Your task to perform on an android device: Search for vegetarian restaurants on Maps Image 0: 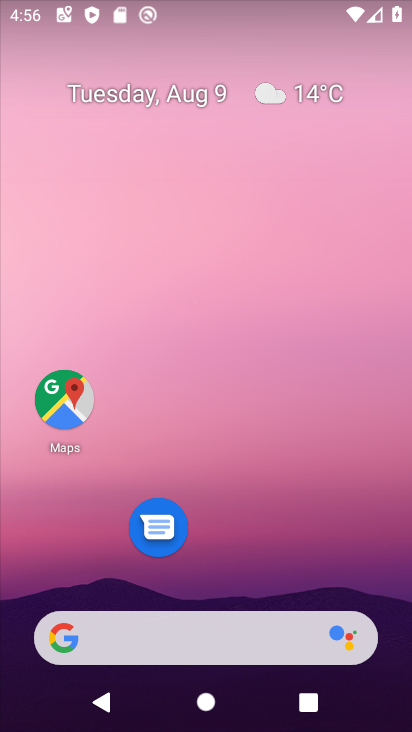
Step 0: click (59, 401)
Your task to perform on an android device: Search for vegetarian restaurants on Maps Image 1: 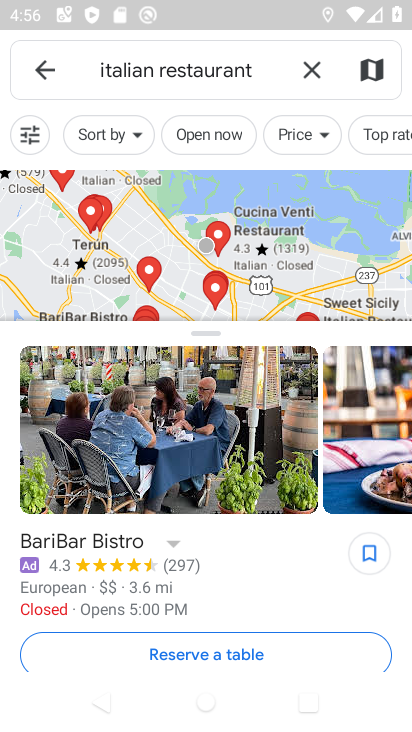
Step 1: click (315, 71)
Your task to perform on an android device: Search for vegetarian restaurants on Maps Image 2: 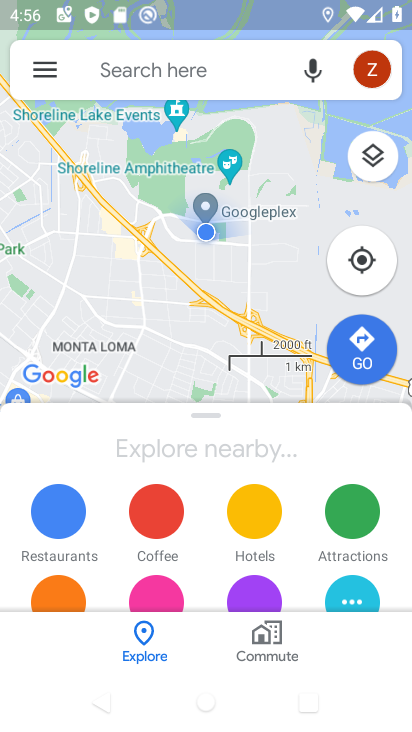
Step 2: click (223, 72)
Your task to perform on an android device: Search for vegetarian restaurants on Maps Image 3: 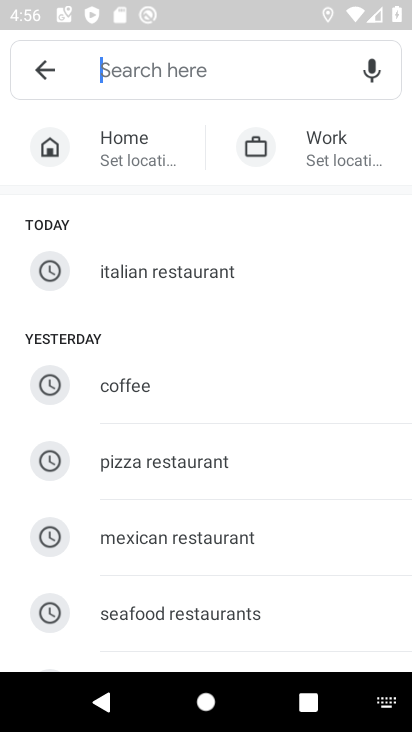
Step 3: drag from (217, 462) to (231, 177)
Your task to perform on an android device: Search for vegetarian restaurants on Maps Image 4: 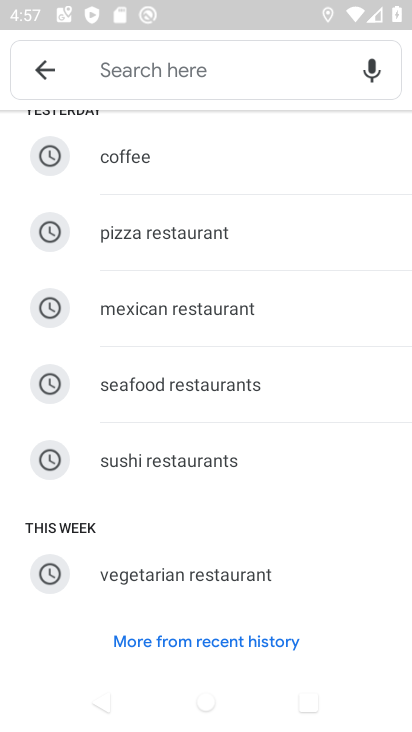
Step 4: click (170, 580)
Your task to perform on an android device: Search for vegetarian restaurants on Maps Image 5: 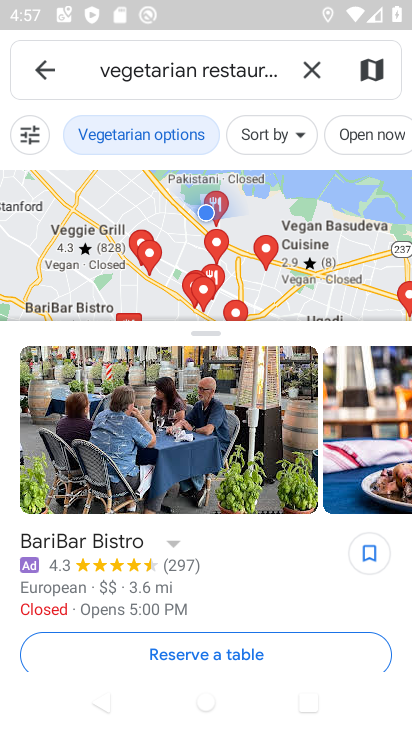
Step 5: task complete